Your task to perform on an android device: visit the assistant section in the google photos Image 0: 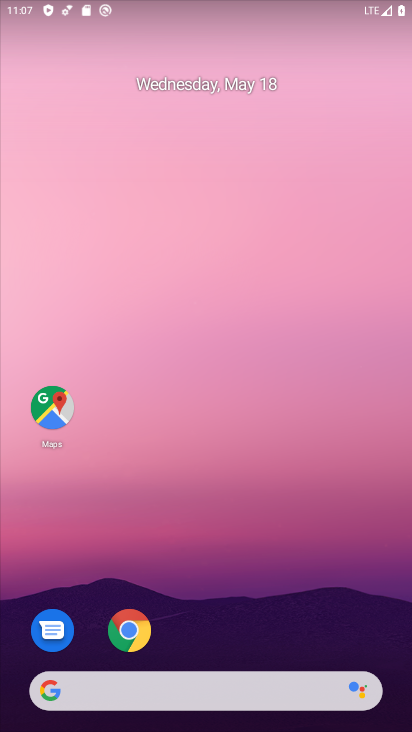
Step 0: drag from (197, 609) to (270, 108)
Your task to perform on an android device: visit the assistant section in the google photos Image 1: 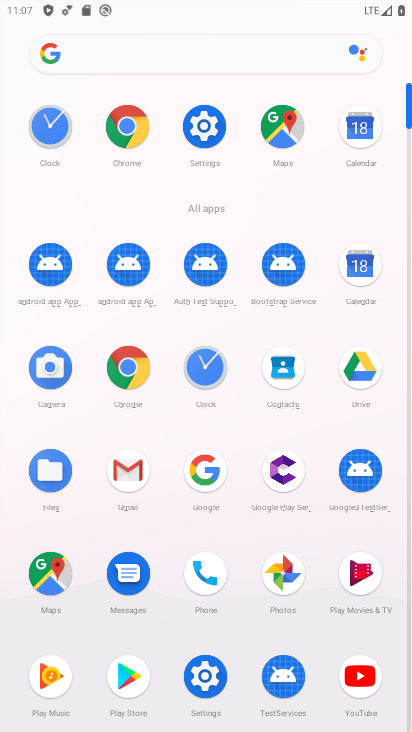
Step 1: click (283, 584)
Your task to perform on an android device: visit the assistant section in the google photos Image 2: 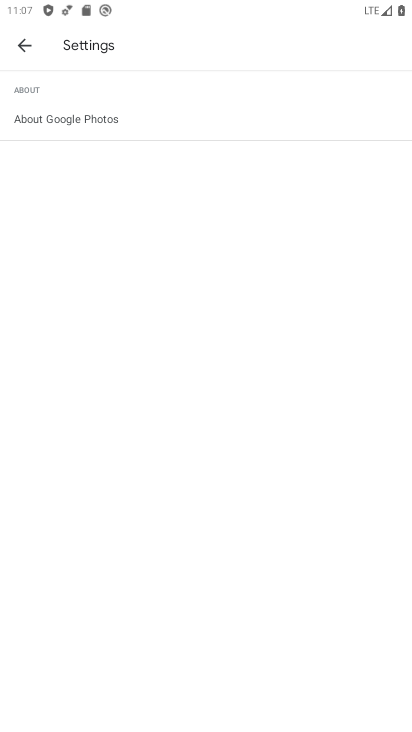
Step 2: click (31, 40)
Your task to perform on an android device: visit the assistant section in the google photos Image 3: 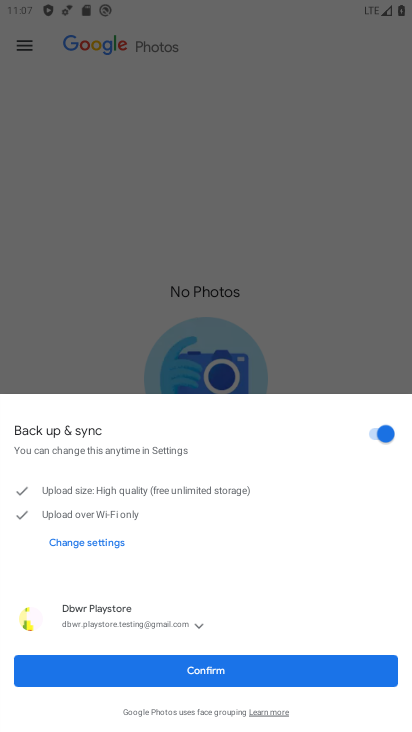
Step 3: click (227, 659)
Your task to perform on an android device: visit the assistant section in the google photos Image 4: 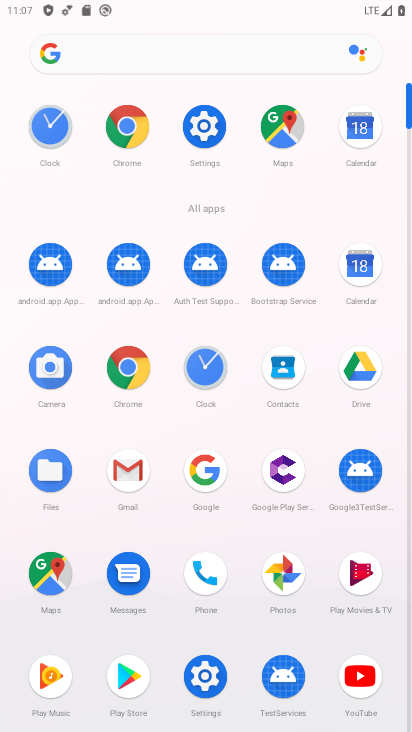
Step 4: click (280, 583)
Your task to perform on an android device: visit the assistant section in the google photos Image 5: 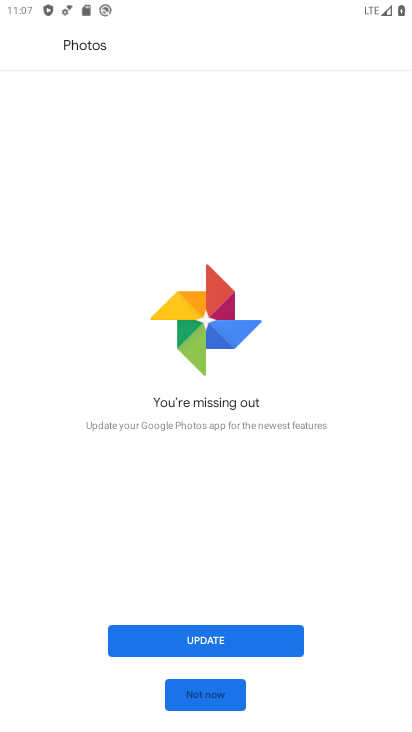
Step 5: click (228, 693)
Your task to perform on an android device: visit the assistant section in the google photos Image 6: 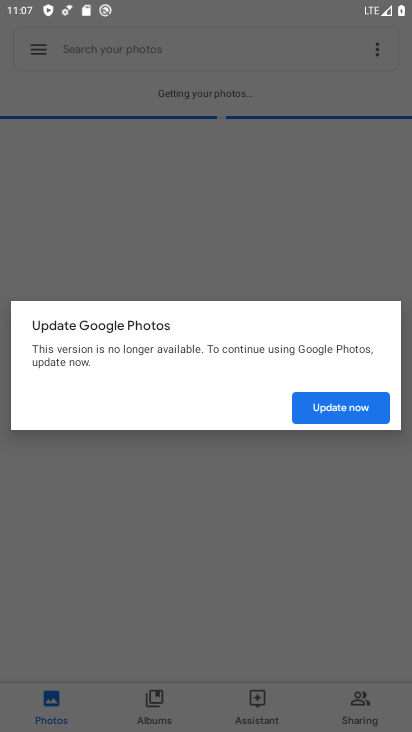
Step 6: click (356, 413)
Your task to perform on an android device: visit the assistant section in the google photos Image 7: 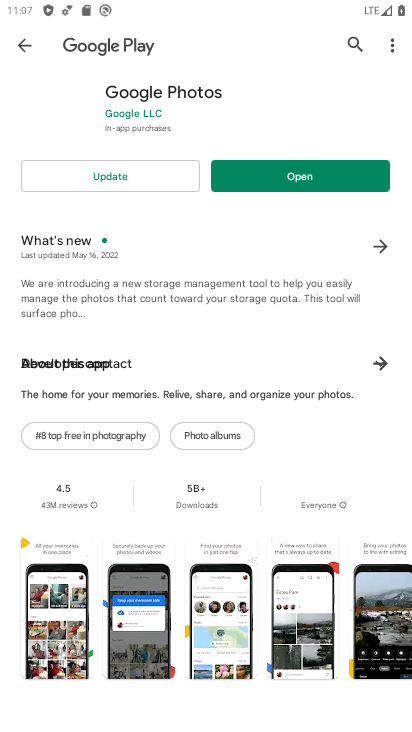
Step 7: press back button
Your task to perform on an android device: visit the assistant section in the google photos Image 8: 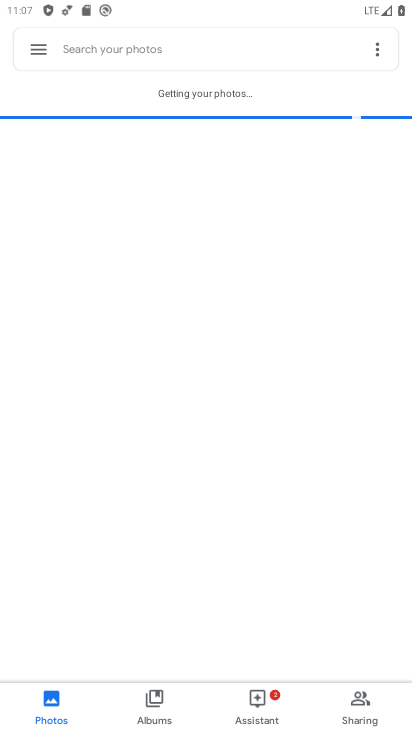
Step 8: click (264, 712)
Your task to perform on an android device: visit the assistant section in the google photos Image 9: 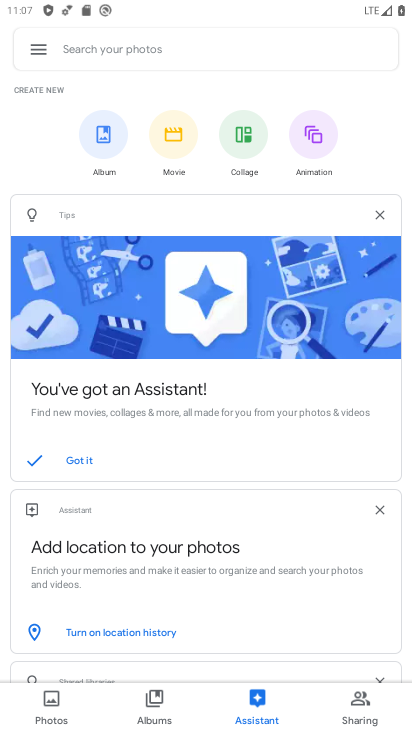
Step 9: task complete